Your task to perform on an android device: delete browsing data in the chrome app Image 0: 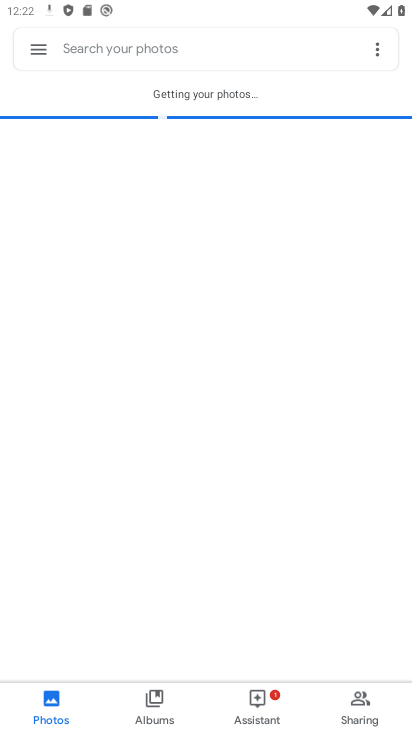
Step 0: press home button
Your task to perform on an android device: delete browsing data in the chrome app Image 1: 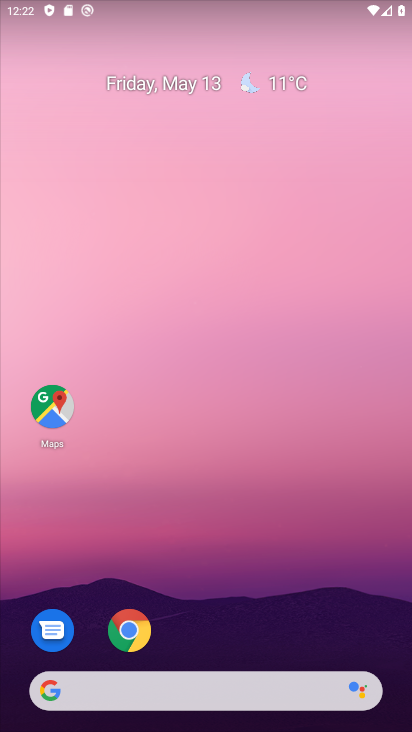
Step 1: click (133, 637)
Your task to perform on an android device: delete browsing data in the chrome app Image 2: 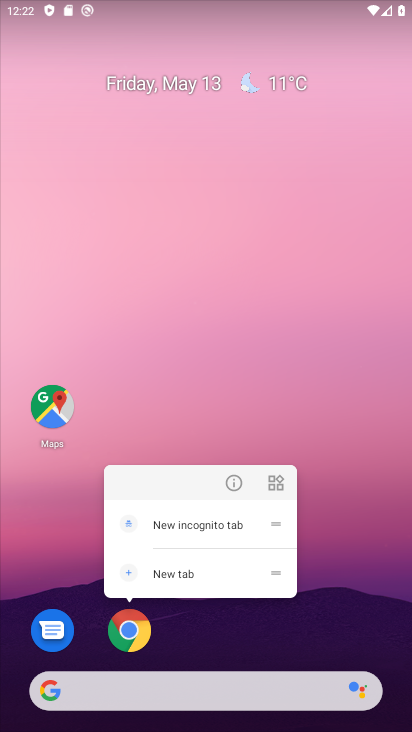
Step 2: click (133, 637)
Your task to perform on an android device: delete browsing data in the chrome app Image 3: 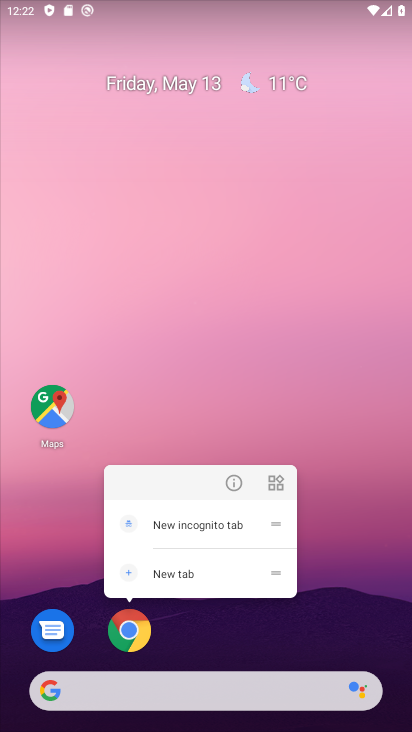
Step 3: click (133, 637)
Your task to perform on an android device: delete browsing data in the chrome app Image 4: 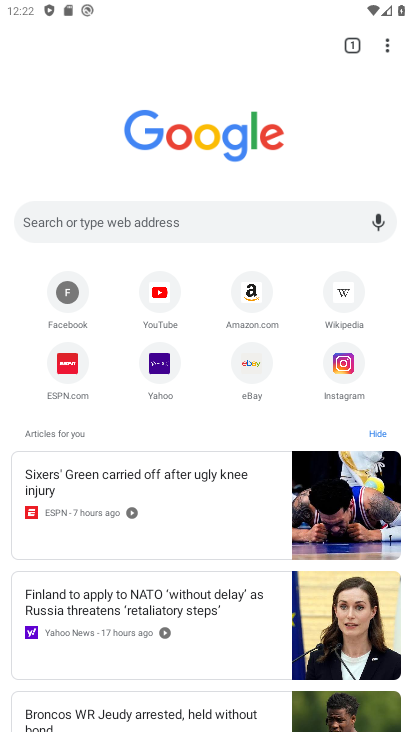
Step 4: click (385, 46)
Your task to perform on an android device: delete browsing data in the chrome app Image 5: 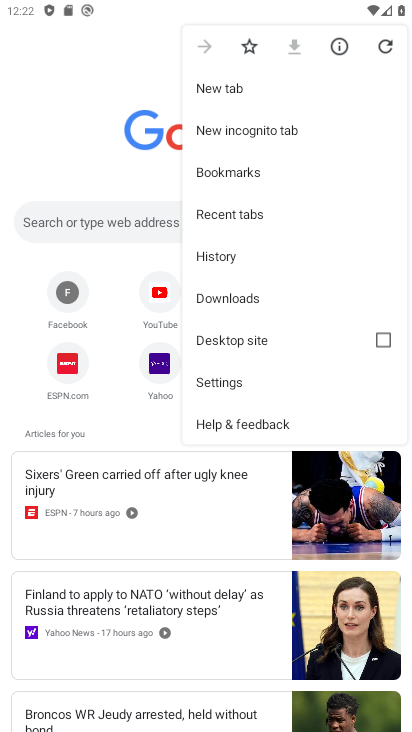
Step 5: click (238, 391)
Your task to perform on an android device: delete browsing data in the chrome app Image 6: 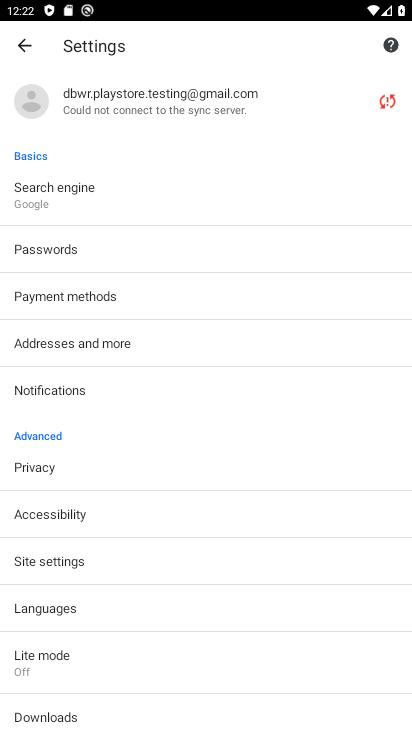
Step 6: click (45, 470)
Your task to perform on an android device: delete browsing data in the chrome app Image 7: 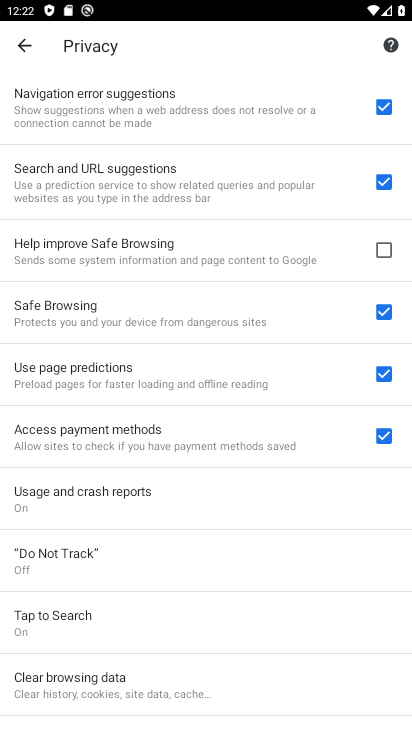
Step 7: click (123, 686)
Your task to perform on an android device: delete browsing data in the chrome app Image 8: 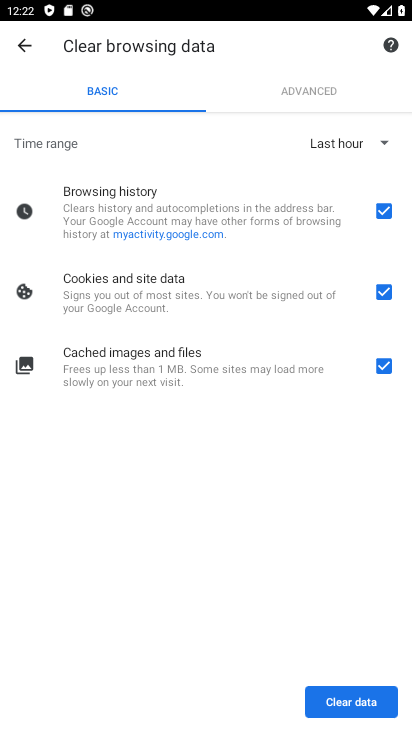
Step 8: click (383, 367)
Your task to perform on an android device: delete browsing data in the chrome app Image 9: 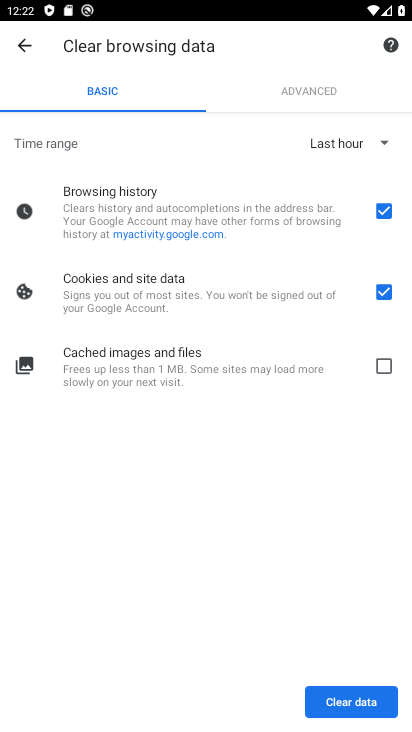
Step 9: click (382, 295)
Your task to perform on an android device: delete browsing data in the chrome app Image 10: 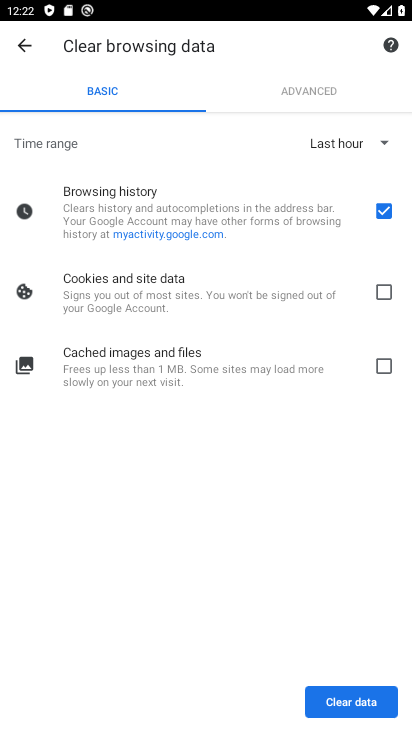
Step 10: click (355, 696)
Your task to perform on an android device: delete browsing data in the chrome app Image 11: 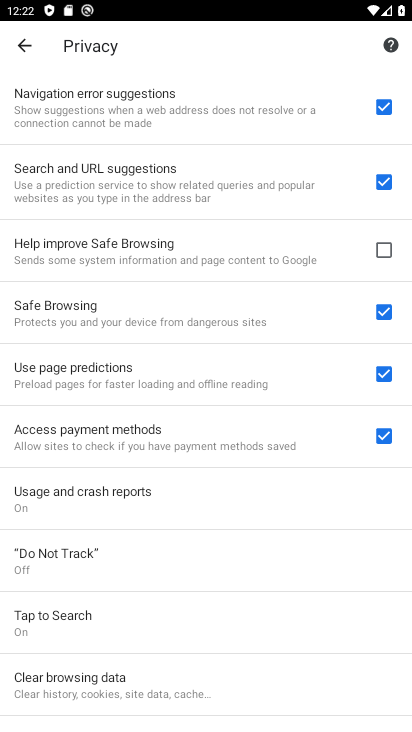
Step 11: task complete